Your task to perform on an android device: Search for seafood restaurants on Google Maps Image 0: 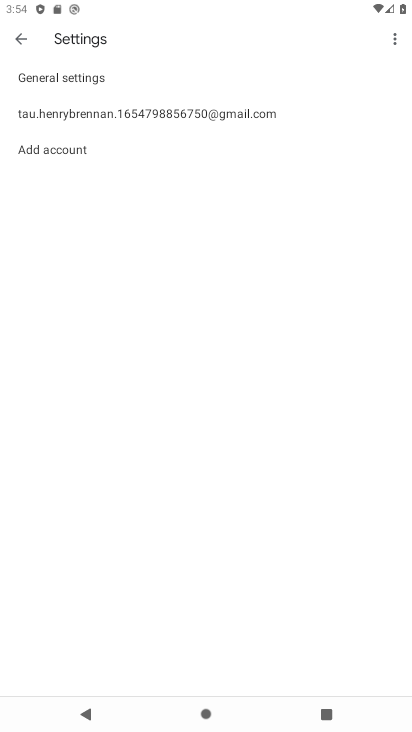
Step 0: press home button
Your task to perform on an android device: Search for seafood restaurants on Google Maps Image 1: 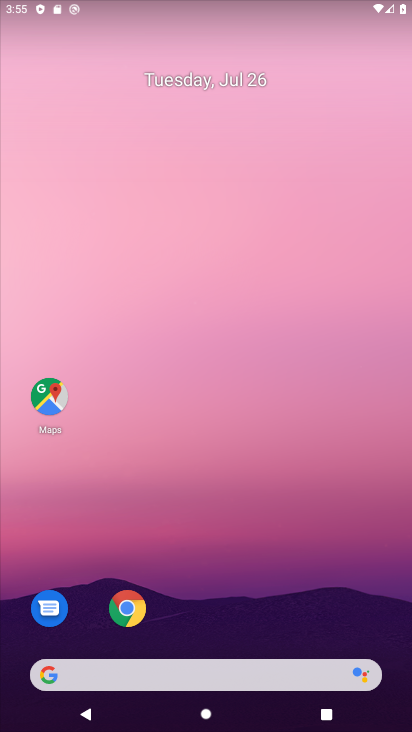
Step 1: click (49, 396)
Your task to perform on an android device: Search for seafood restaurants on Google Maps Image 2: 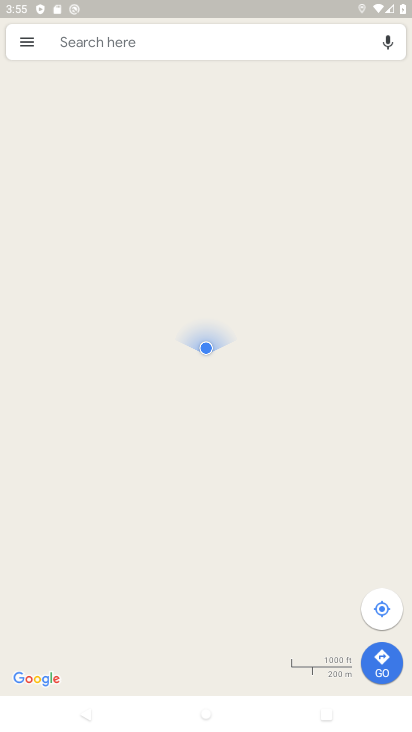
Step 2: click (99, 49)
Your task to perform on an android device: Search for seafood restaurants on Google Maps Image 3: 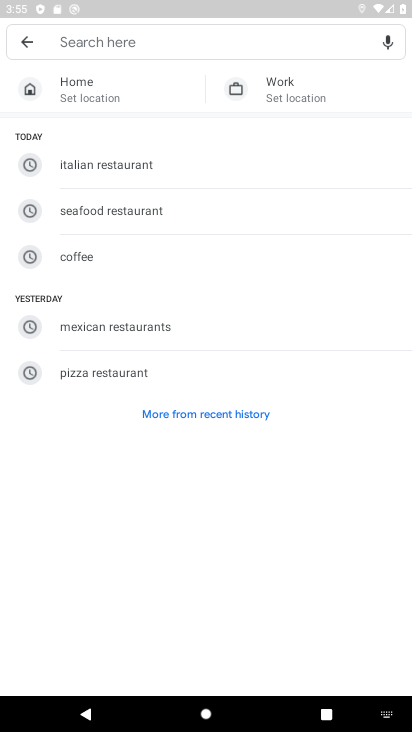
Step 3: click (58, 194)
Your task to perform on an android device: Search for seafood restaurants on Google Maps Image 4: 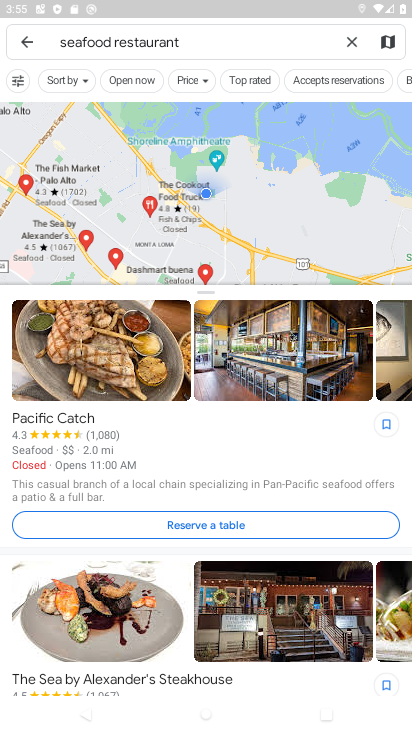
Step 4: task complete